Your task to perform on an android device: What's the weather going to be tomorrow? Image 0: 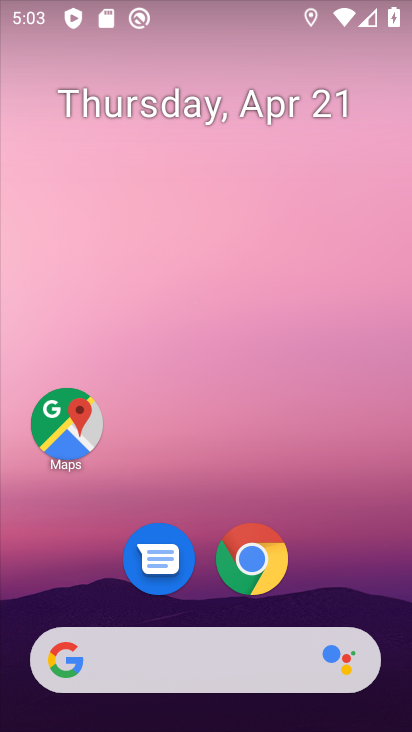
Step 0: drag from (336, 523) to (330, 43)
Your task to perform on an android device: What's the weather going to be tomorrow? Image 1: 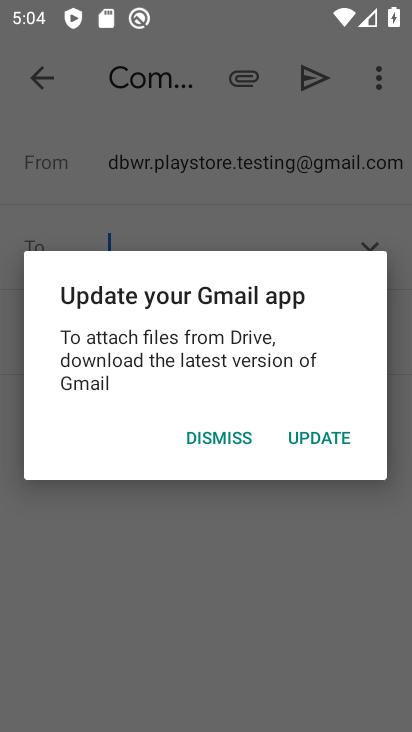
Step 1: press home button
Your task to perform on an android device: What's the weather going to be tomorrow? Image 2: 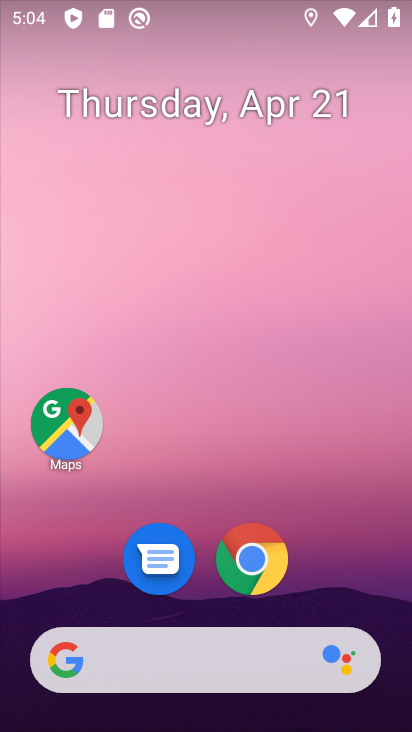
Step 2: drag from (115, 200) to (390, 211)
Your task to perform on an android device: What's the weather going to be tomorrow? Image 3: 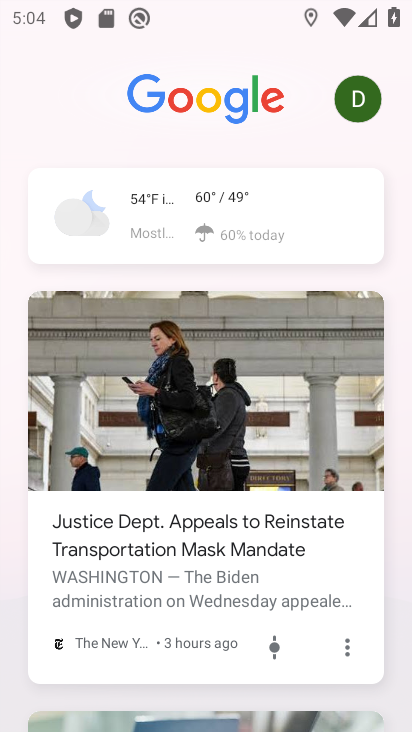
Step 3: click (243, 228)
Your task to perform on an android device: What's the weather going to be tomorrow? Image 4: 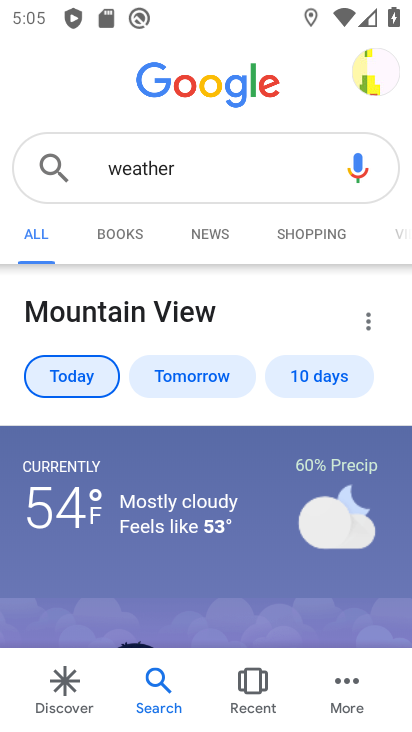
Step 4: click (187, 373)
Your task to perform on an android device: What's the weather going to be tomorrow? Image 5: 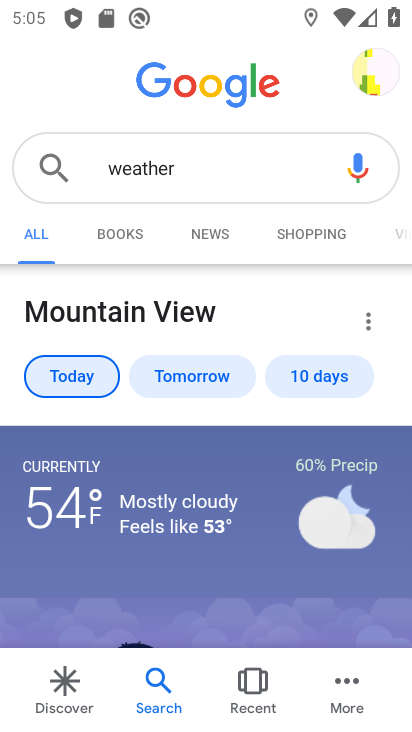
Step 5: click (186, 383)
Your task to perform on an android device: What's the weather going to be tomorrow? Image 6: 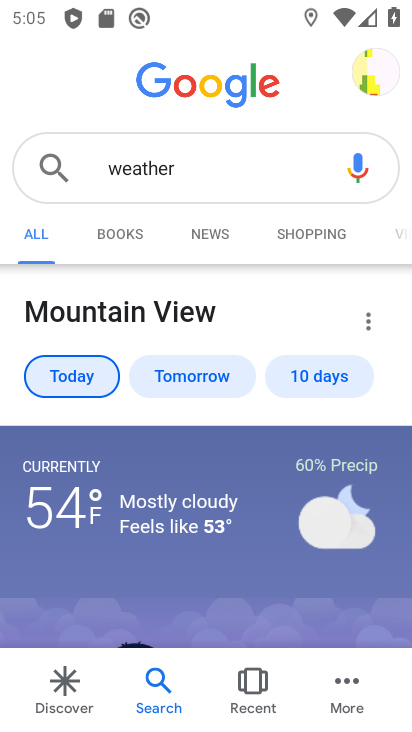
Step 6: click (192, 370)
Your task to perform on an android device: What's the weather going to be tomorrow? Image 7: 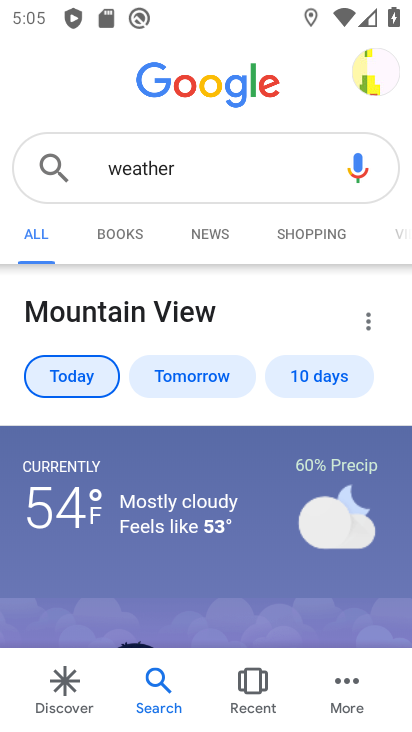
Step 7: click (192, 371)
Your task to perform on an android device: What's the weather going to be tomorrow? Image 8: 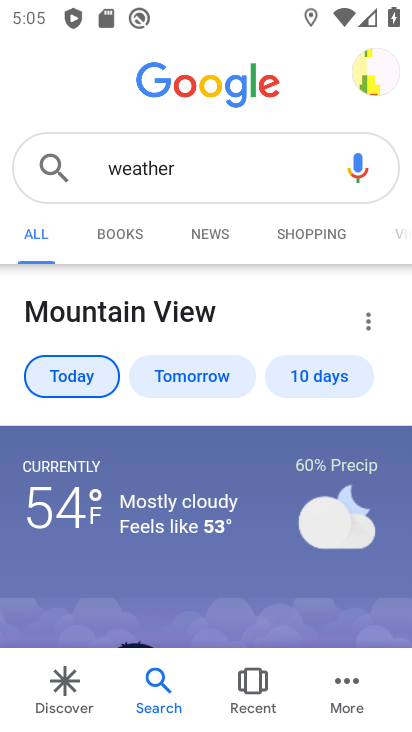
Step 8: click (192, 371)
Your task to perform on an android device: What's the weather going to be tomorrow? Image 9: 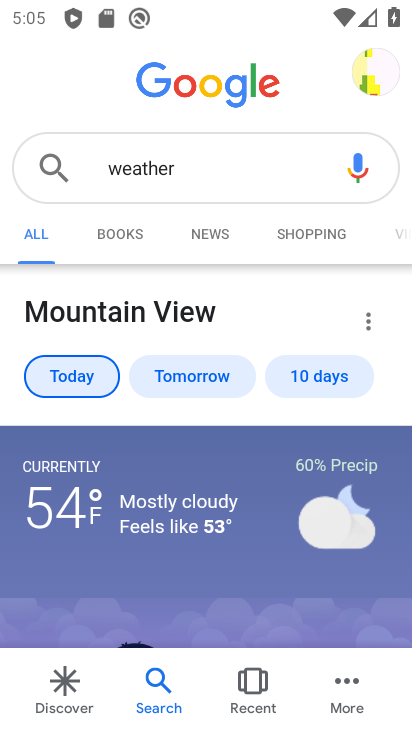
Step 9: click (239, 380)
Your task to perform on an android device: What's the weather going to be tomorrow? Image 10: 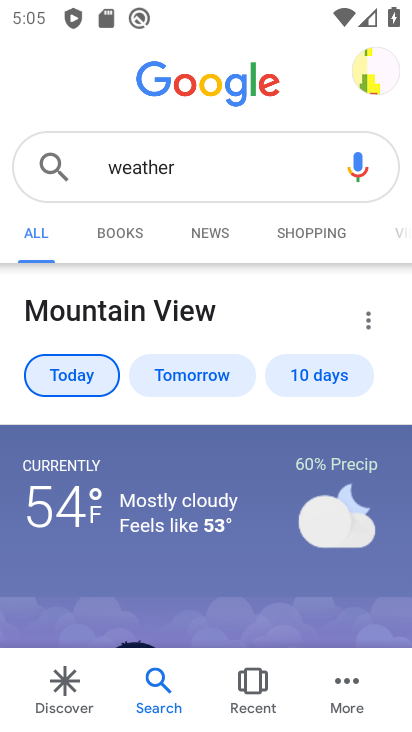
Step 10: click (227, 371)
Your task to perform on an android device: What's the weather going to be tomorrow? Image 11: 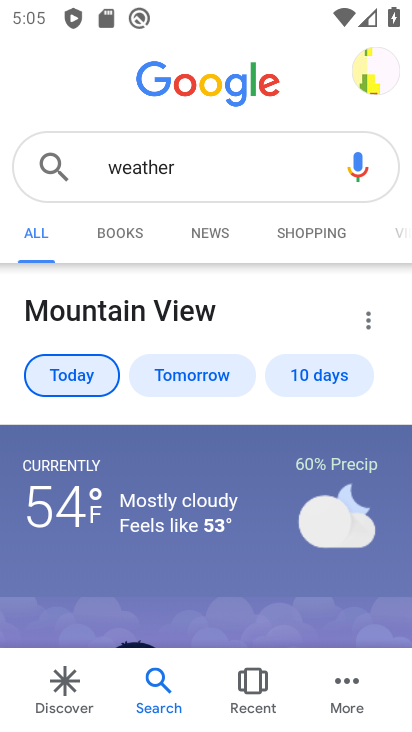
Step 11: click (228, 369)
Your task to perform on an android device: What's the weather going to be tomorrow? Image 12: 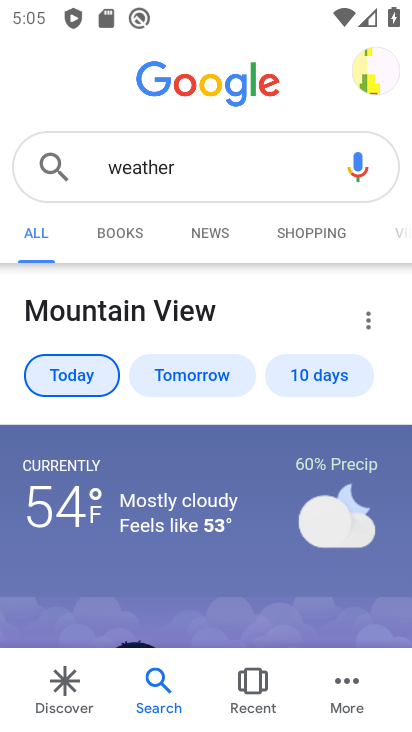
Step 12: click (228, 370)
Your task to perform on an android device: What's the weather going to be tomorrow? Image 13: 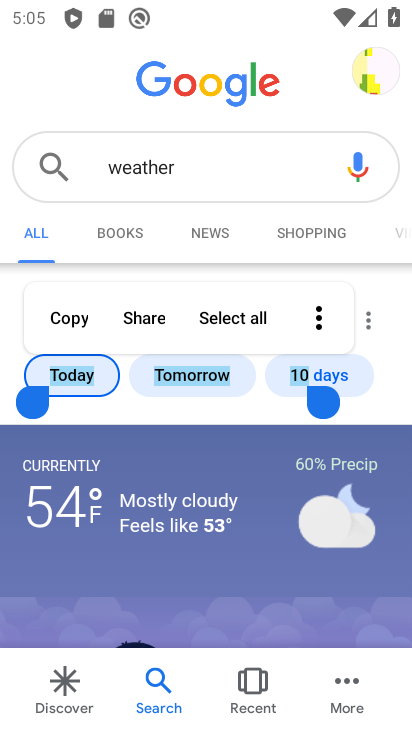
Step 13: click (188, 369)
Your task to perform on an android device: What's the weather going to be tomorrow? Image 14: 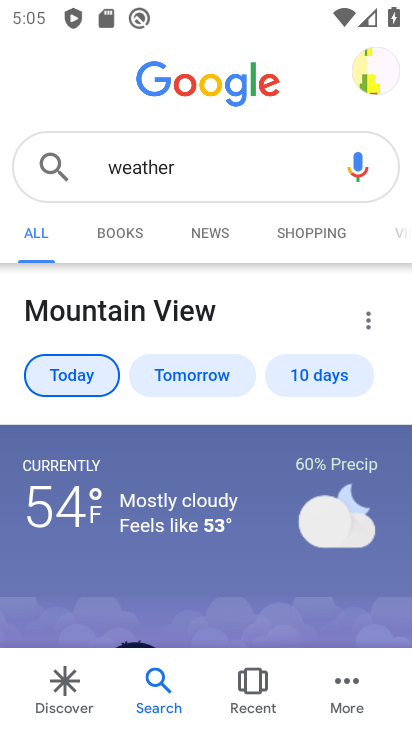
Step 14: click (185, 375)
Your task to perform on an android device: What's the weather going to be tomorrow? Image 15: 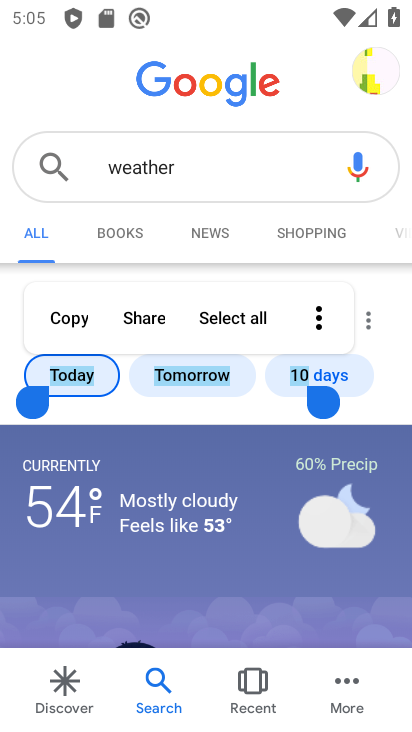
Step 15: task complete